Your task to perform on an android device: Is it going to rain this weekend? Image 0: 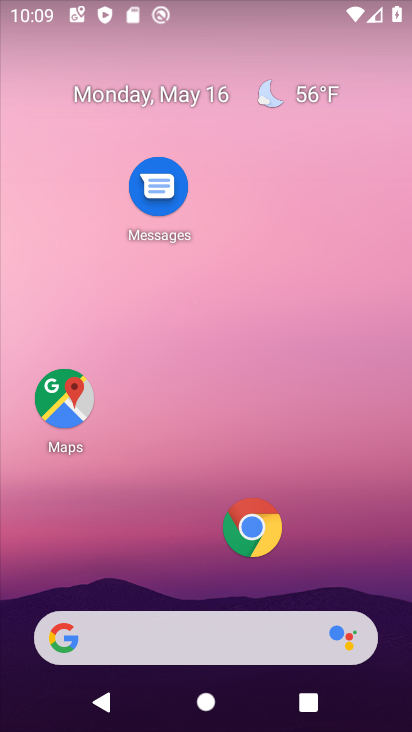
Step 0: drag from (186, 540) to (175, 71)
Your task to perform on an android device: Is it going to rain this weekend? Image 1: 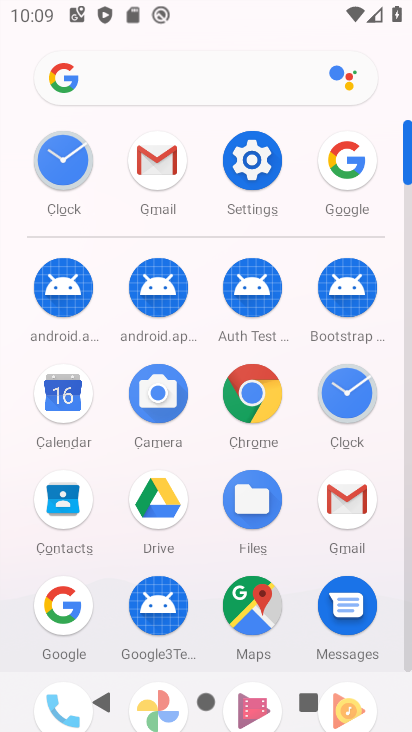
Step 1: click (57, 608)
Your task to perform on an android device: Is it going to rain this weekend? Image 2: 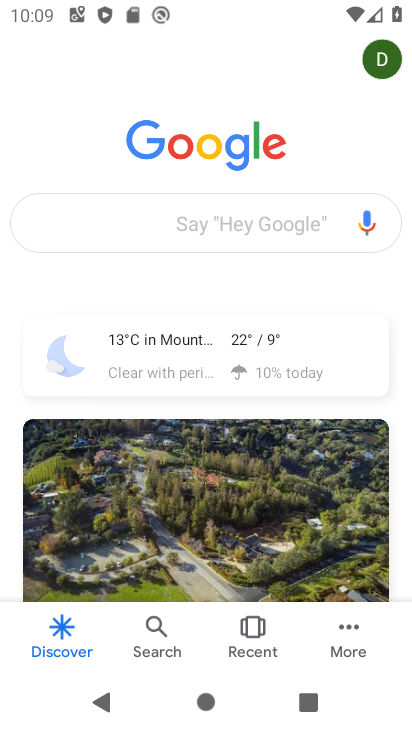
Step 2: click (158, 230)
Your task to perform on an android device: Is it going to rain this weekend? Image 3: 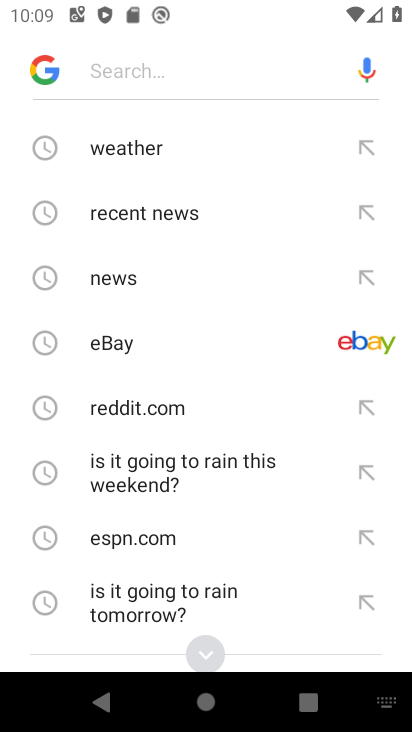
Step 3: type "rain this weekend"
Your task to perform on an android device: Is it going to rain this weekend? Image 4: 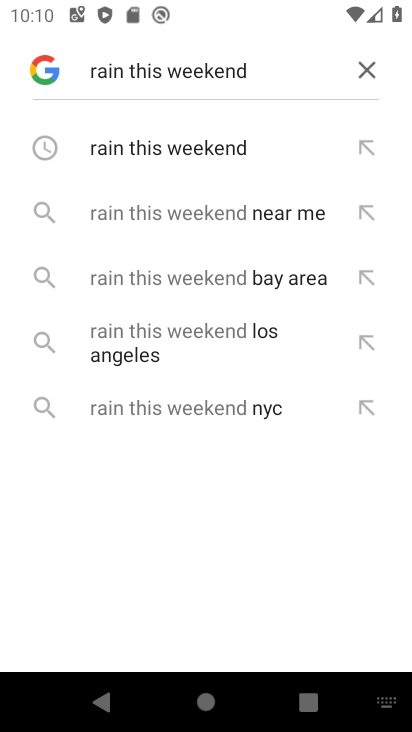
Step 4: click (202, 143)
Your task to perform on an android device: Is it going to rain this weekend? Image 5: 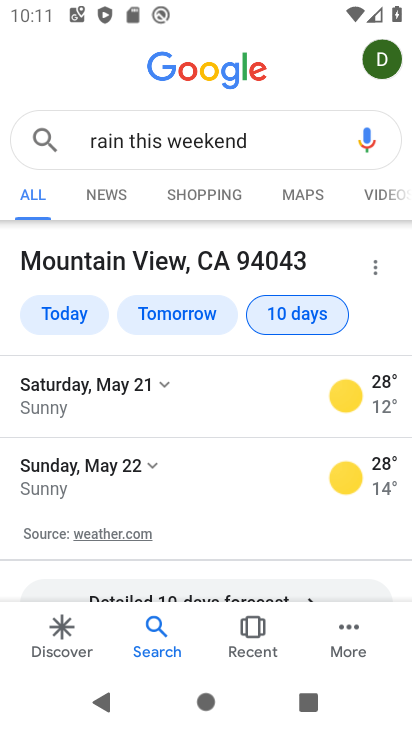
Step 5: task complete